Your task to perform on an android device: toggle sleep mode Image 0: 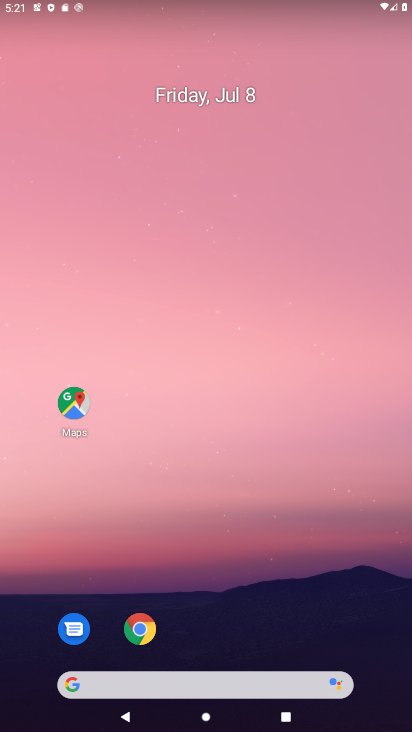
Step 0: drag from (258, 578) to (202, 117)
Your task to perform on an android device: toggle sleep mode Image 1: 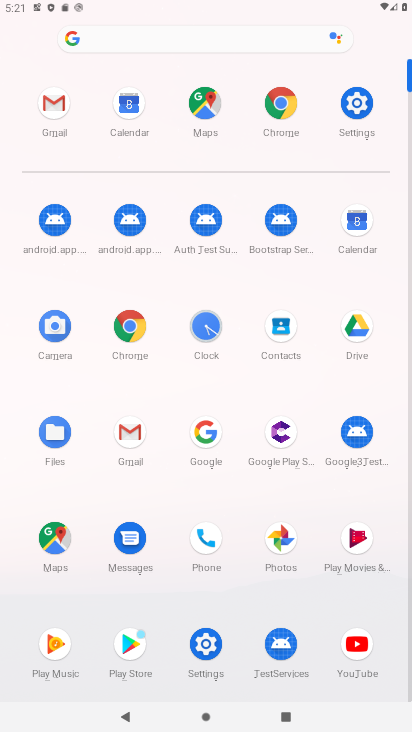
Step 1: click (354, 115)
Your task to perform on an android device: toggle sleep mode Image 2: 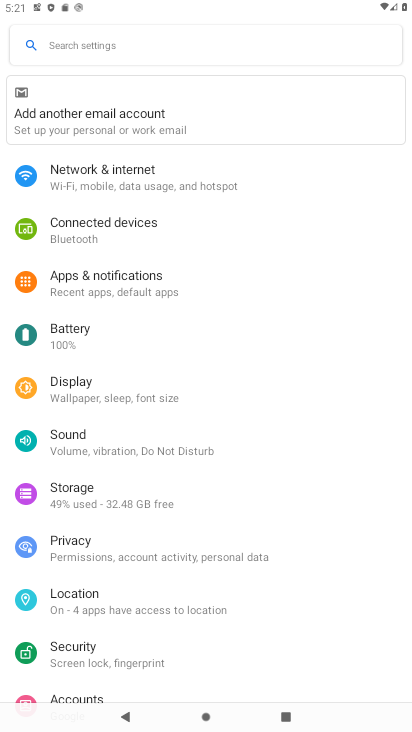
Step 2: click (84, 379)
Your task to perform on an android device: toggle sleep mode Image 3: 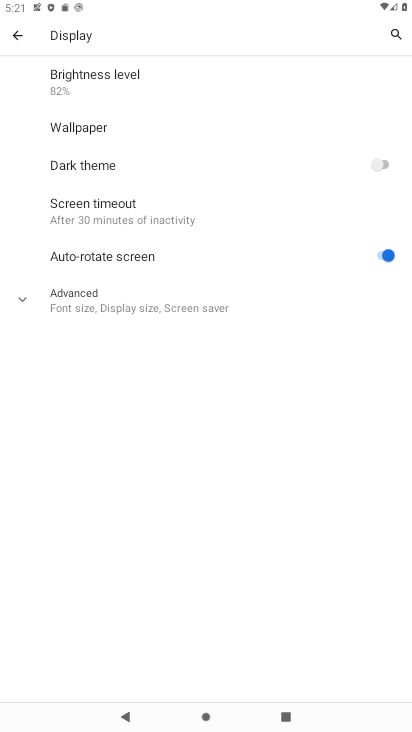
Step 3: task complete